Your task to perform on an android device: Open location settings Image 0: 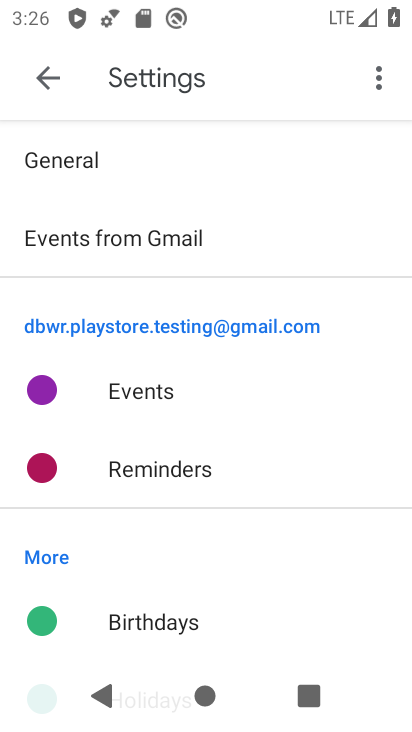
Step 0: press home button
Your task to perform on an android device: Open location settings Image 1: 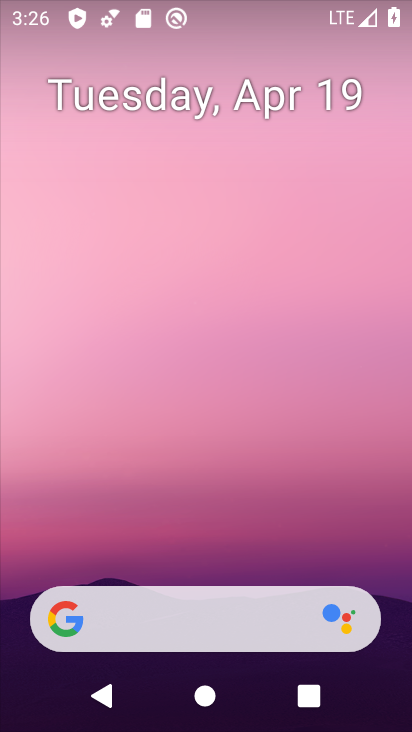
Step 1: drag from (211, 549) to (255, 129)
Your task to perform on an android device: Open location settings Image 2: 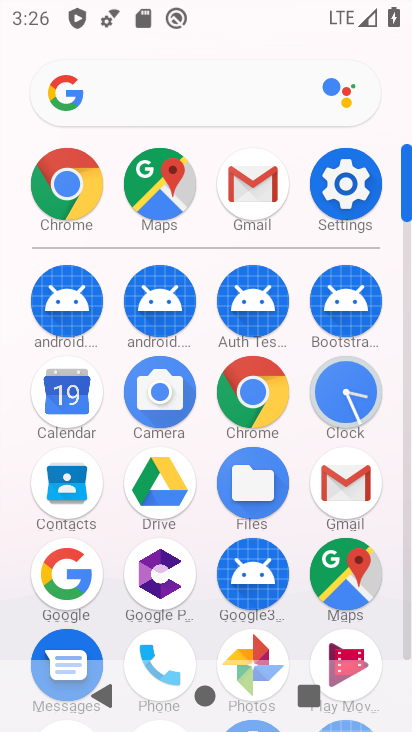
Step 2: click (343, 185)
Your task to perform on an android device: Open location settings Image 3: 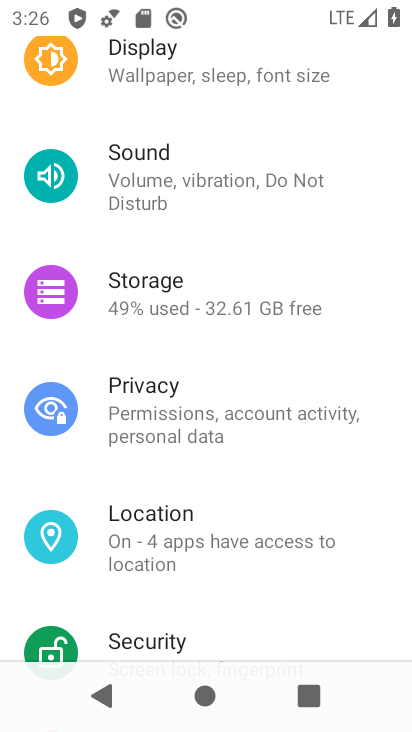
Step 3: click (159, 507)
Your task to perform on an android device: Open location settings Image 4: 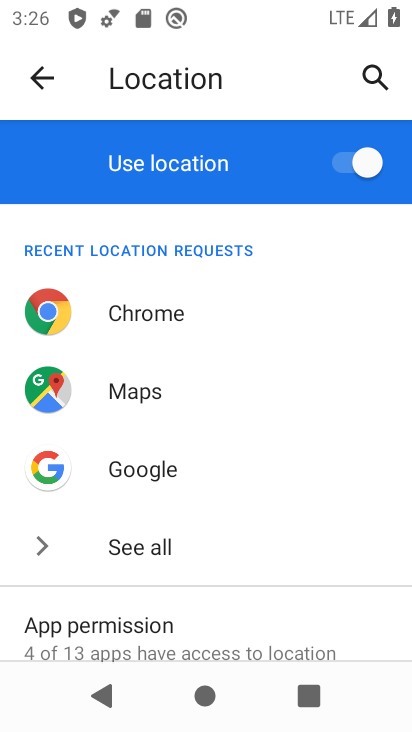
Step 4: task complete